Your task to perform on an android device: turn off data saver in the chrome app Image 0: 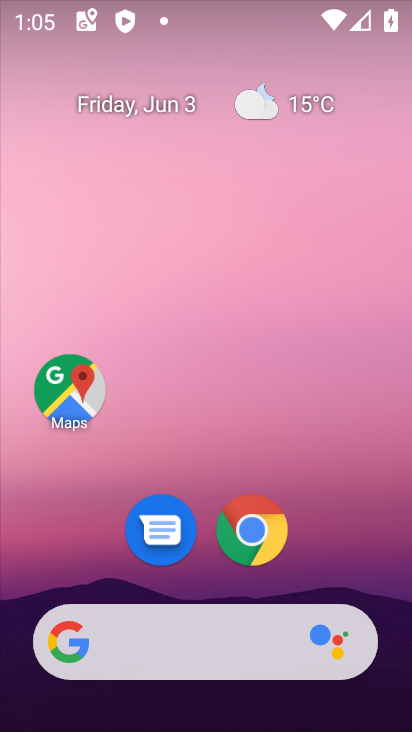
Step 0: press home button
Your task to perform on an android device: turn off data saver in the chrome app Image 1: 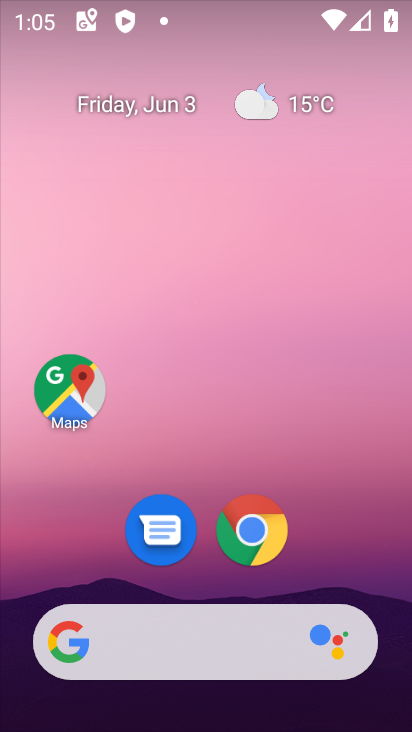
Step 1: click (268, 537)
Your task to perform on an android device: turn off data saver in the chrome app Image 2: 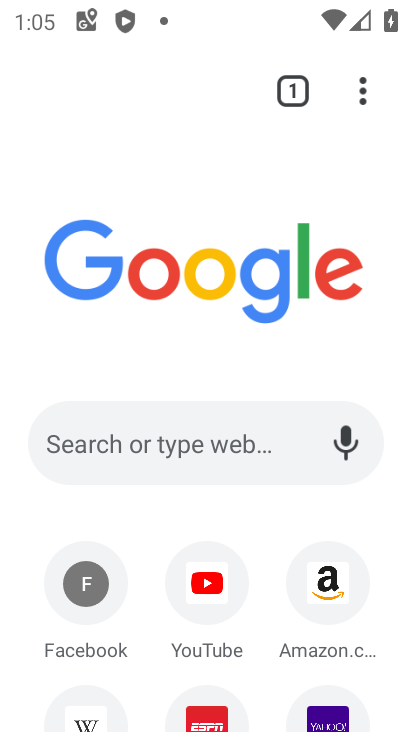
Step 2: click (362, 94)
Your task to perform on an android device: turn off data saver in the chrome app Image 3: 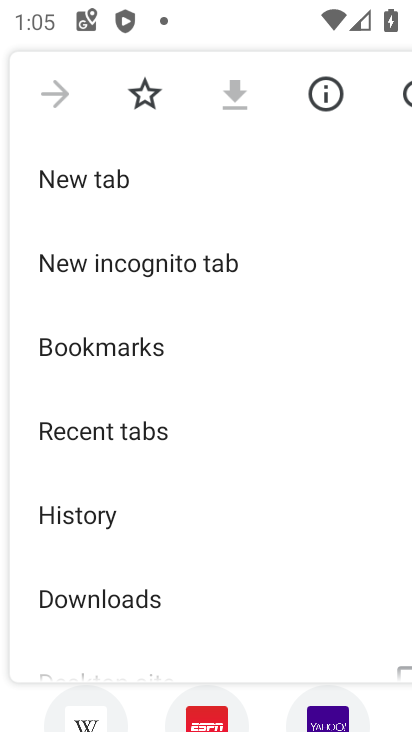
Step 3: drag from (381, 624) to (371, 216)
Your task to perform on an android device: turn off data saver in the chrome app Image 4: 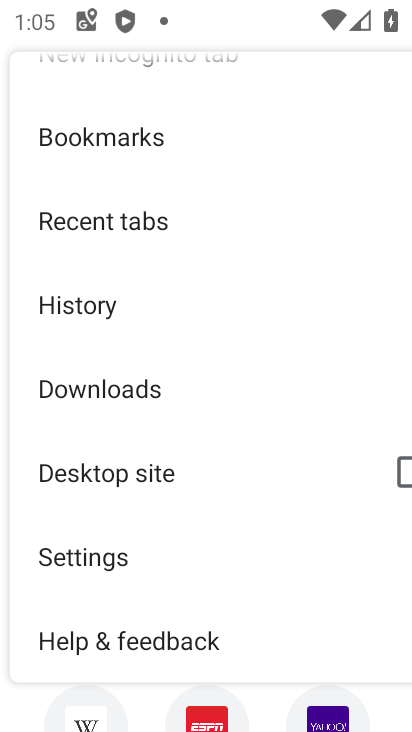
Step 4: click (100, 565)
Your task to perform on an android device: turn off data saver in the chrome app Image 5: 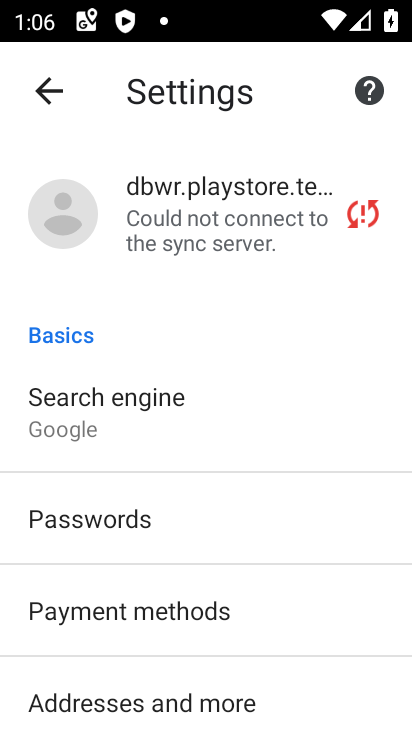
Step 5: drag from (361, 426) to (410, 1)
Your task to perform on an android device: turn off data saver in the chrome app Image 6: 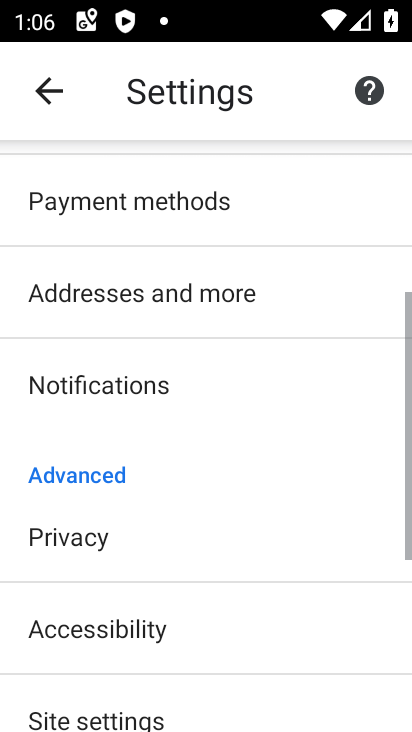
Step 6: drag from (345, 482) to (396, 82)
Your task to perform on an android device: turn off data saver in the chrome app Image 7: 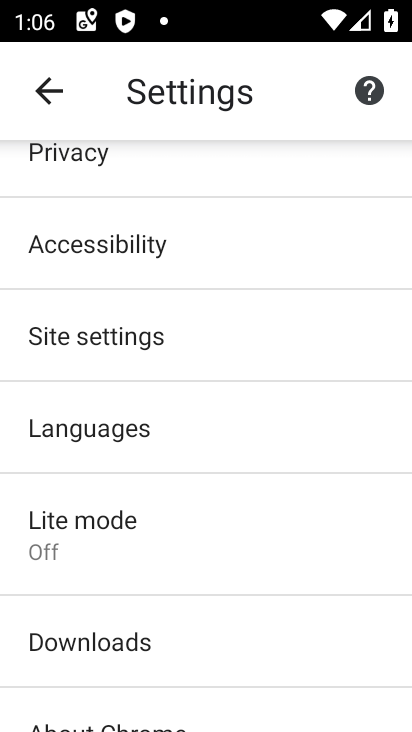
Step 7: click (92, 548)
Your task to perform on an android device: turn off data saver in the chrome app Image 8: 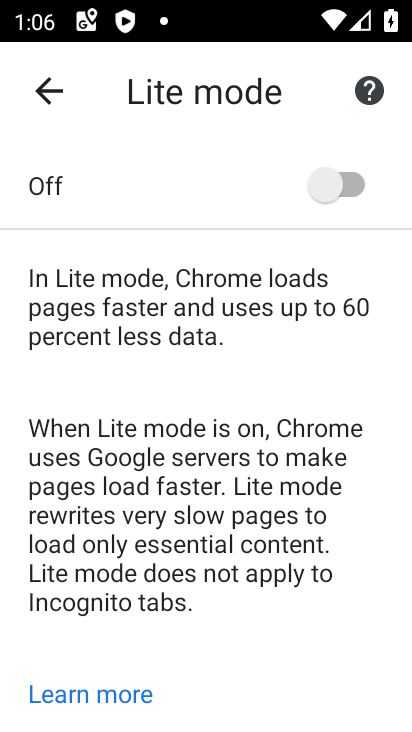
Step 8: task complete